Your task to perform on an android device: Go to Google Image 0: 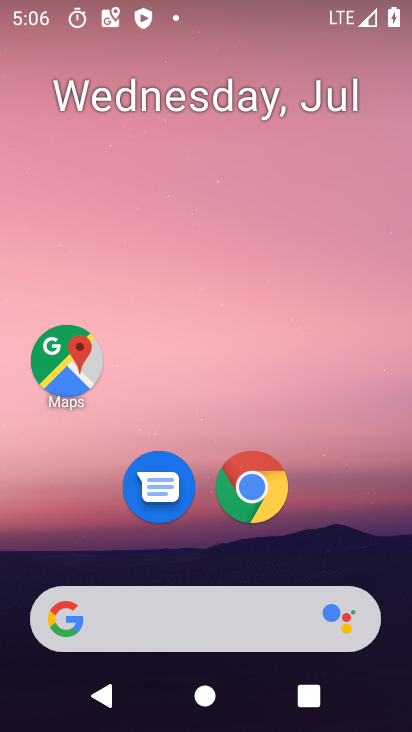
Step 0: drag from (204, 573) to (275, 22)
Your task to perform on an android device: Go to Google Image 1: 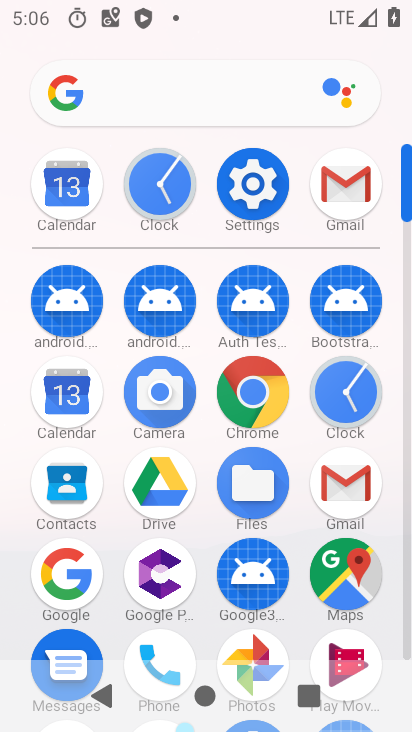
Step 1: click (60, 597)
Your task to perform on an android device: Go to Google Image 2: 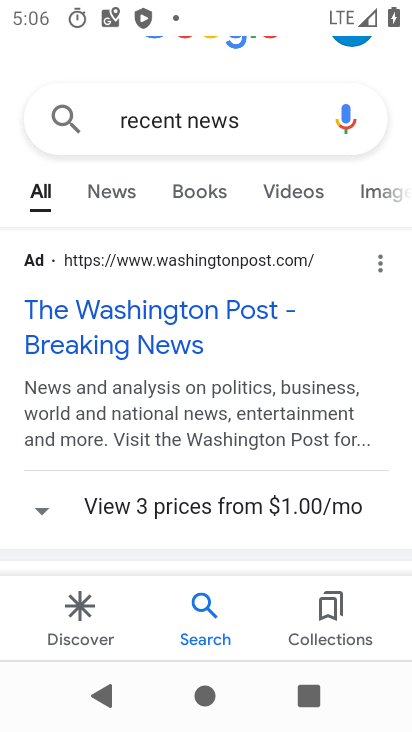
Step 2: task complete